Your task to perform on an android device: Search for Mexican restaurants on Maps Image 0: 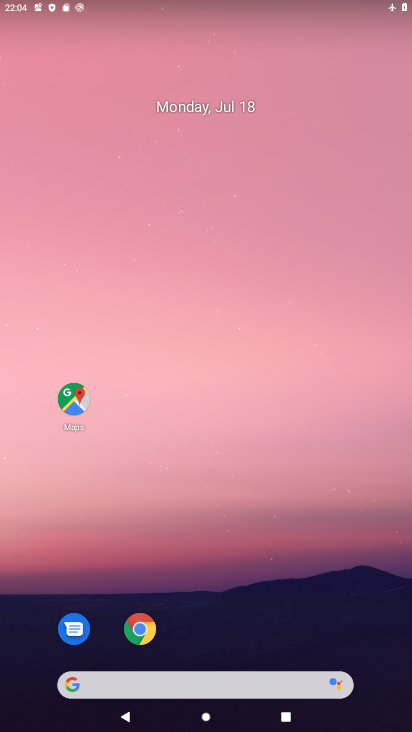
Step 0: drag from (300, 524) to (246, 152)
Your task to perform on an android device: Search for Mexican restaurants on Maps Image 1: 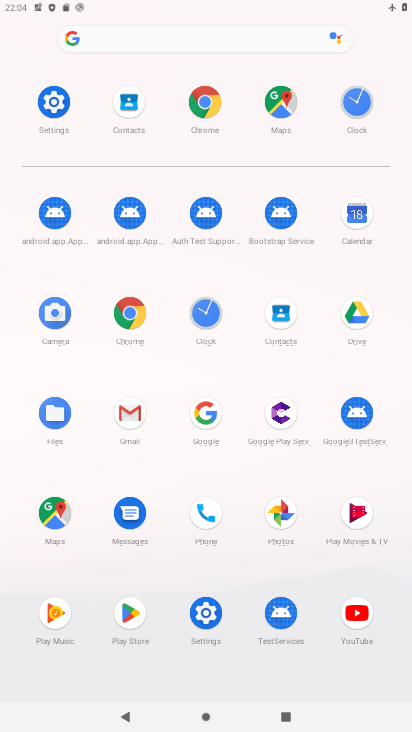
Step 1: click (279, 108)
Your task to perform on an android device: Search for Mexican restaurants on Maps Image 2: 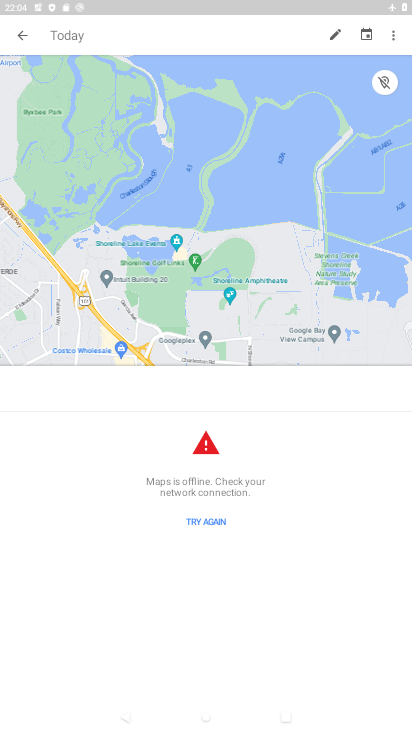
Step 2: task complete